Your task to perform on an android device: Open calendar and show me the first week of next month Image 0: 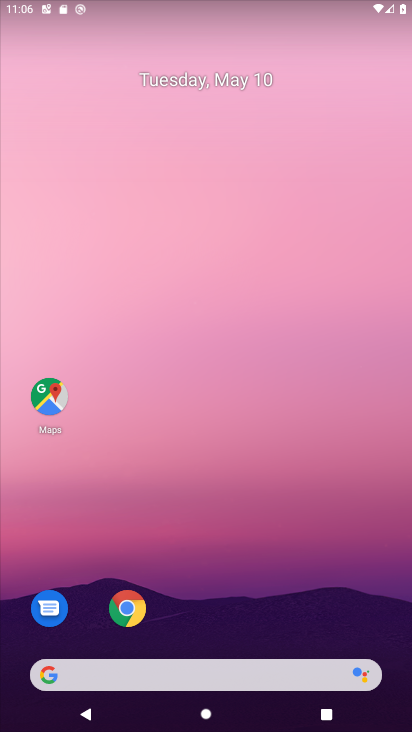
Step 0: drag from (203, 678) to (194, 247)
Your task to perform on an android device: Open calendar and show me the first week of next month Image 1: 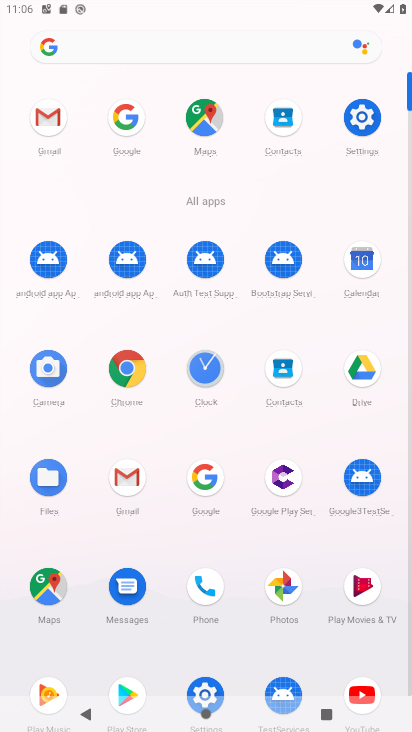
Step 1: click (361, 271)
Your task to perform on an android device: Open calendar and show me the first week of next month Image 2: 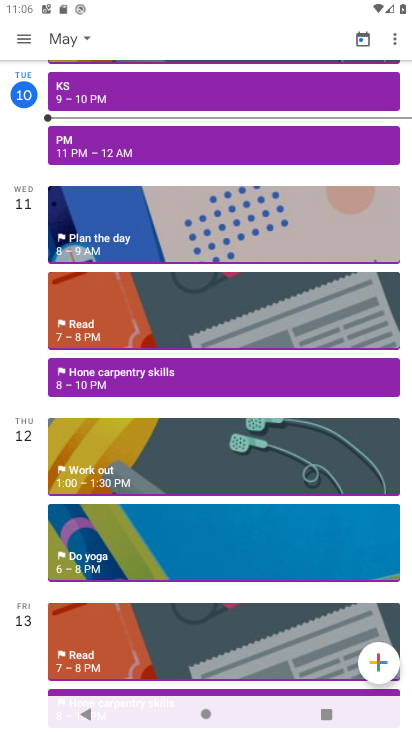
Step 2: click (26, 37)
Your task to perform on an android device: Open calendar and show me the first week of next month Image 3: 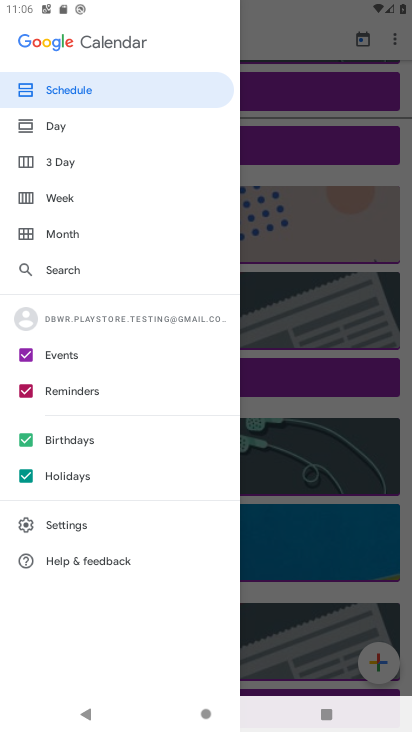
Step 3: click (70, 232)
Your task to perform on an android device: Open calendar and show me the first week of next month Image 4: 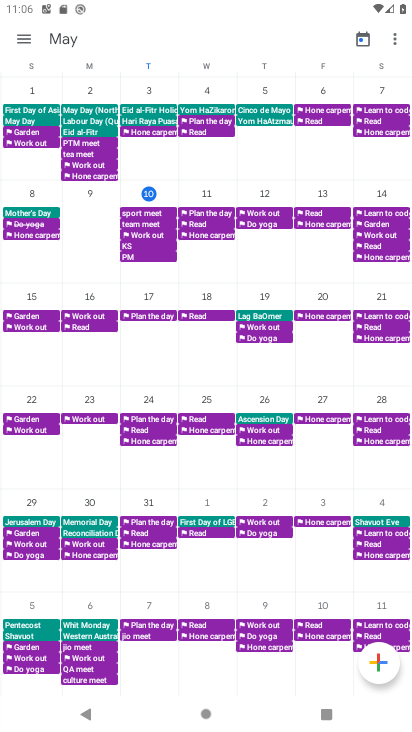
Step 4: task complete